Your task to perform on an android device: Play the last video I watched on Youtube Image 0: 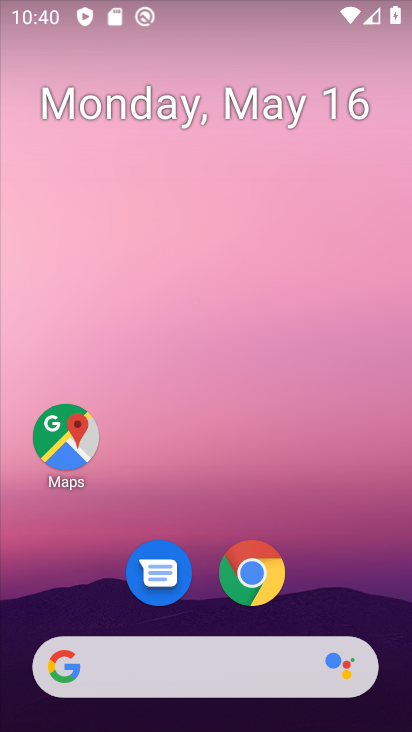
Step 0: drag from (305, 618) to (199, 110)
Your task to perform on an android device: Play the last video I watched on Youtube Image 1: 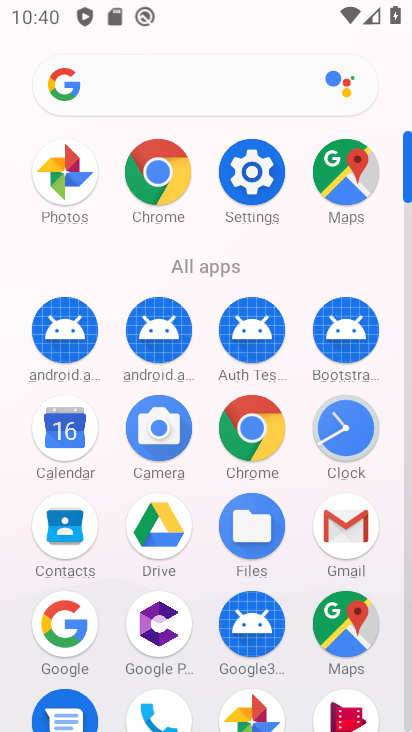
Step 1: click (262, 418)
Your task to perform on an android device: Play the last video I watched on Youtube Image 2: 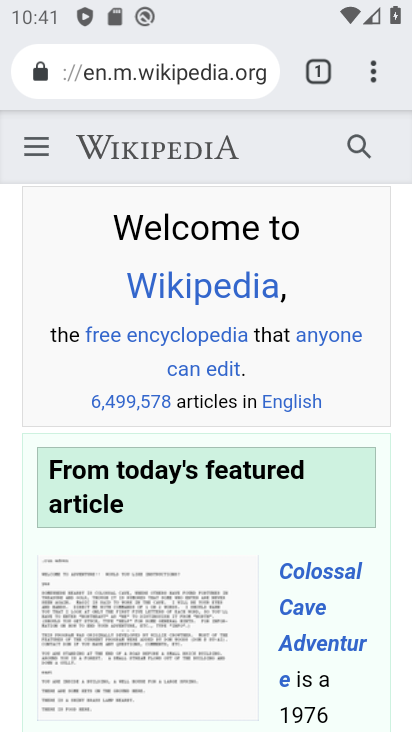
Step 2: press home button
Your task to perform on an android device: Play the last video I watched on Youtube Image 3: 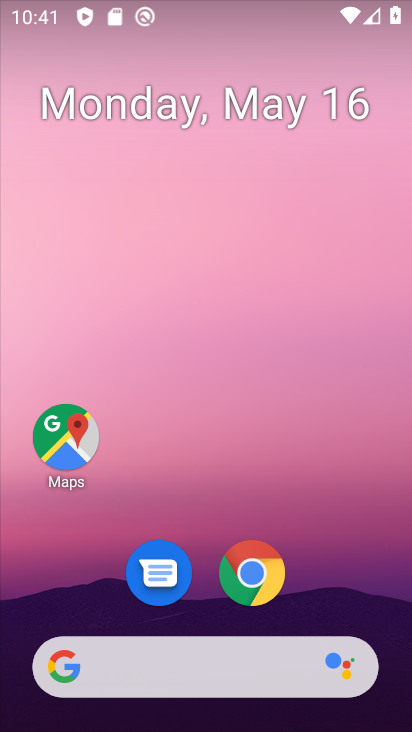
Step 3: drag from (172, 454) to (145, 176)
Your task to perform on an android device: Play the last video I watched on Youtube Image 4: 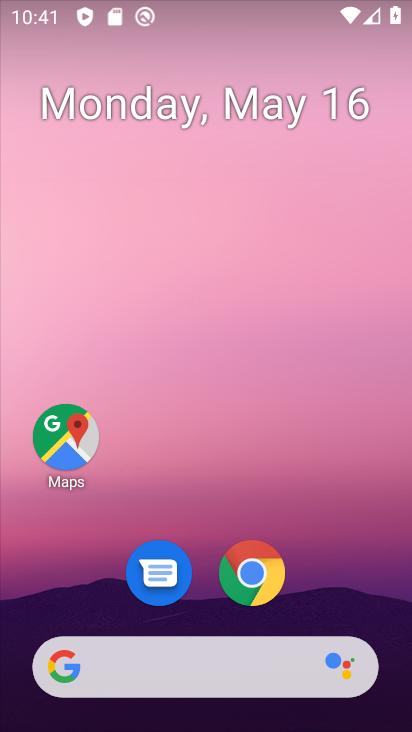
Step 4: drag from (293, 716) to (267, 78)
Your task to perform on an android device: Play the last video I watched on Youtube Image 5: 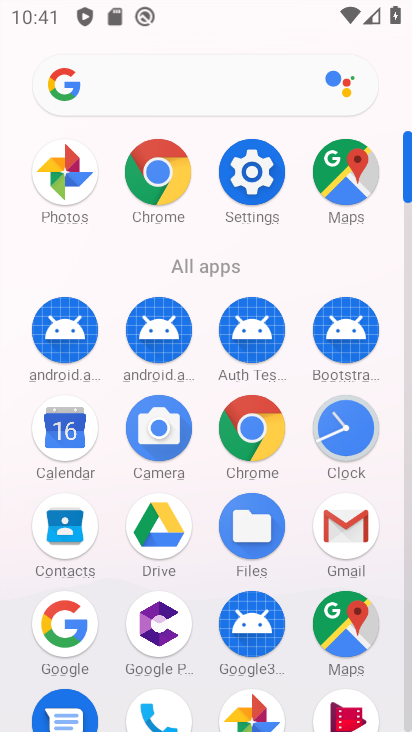
Step 5: drag from (324, 342) to (298, 83)
Your task to perform on an android device: Play the last video I watched on Youtube Image 6: 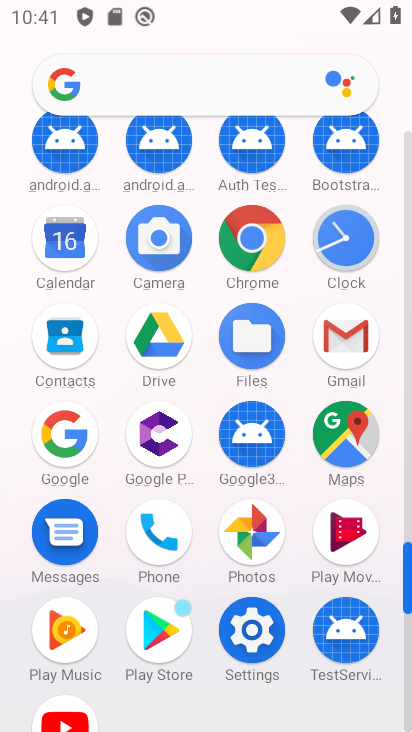
Step 6: click (74, 716)
Your task to perform on an android device: Play the last video I watched on Youtube Image 7: 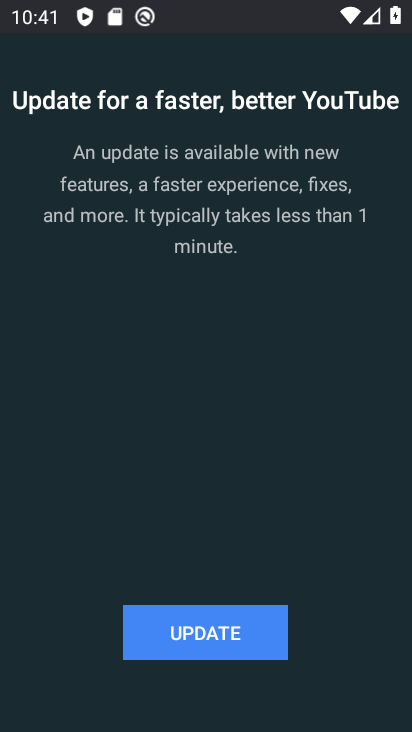
Step 7: drag from (353, 689) to (207, 689)
Your task to perform on an android device: Play the last video I watched on Youtube Image 8: 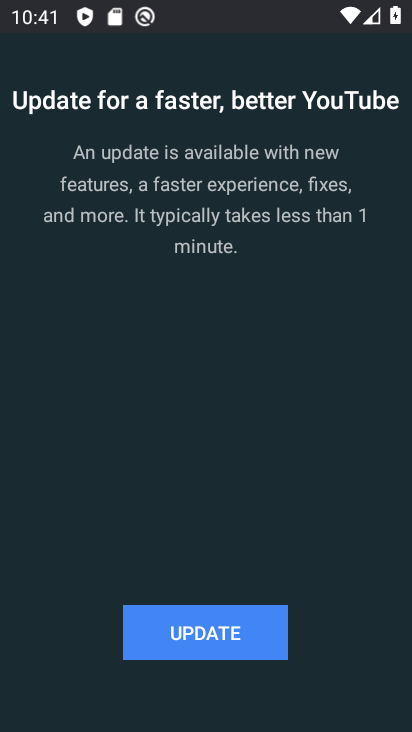
Step 8: click (204, 642)
Your task to perform on an android device: Play the last video I watched on Youtube Image 9: 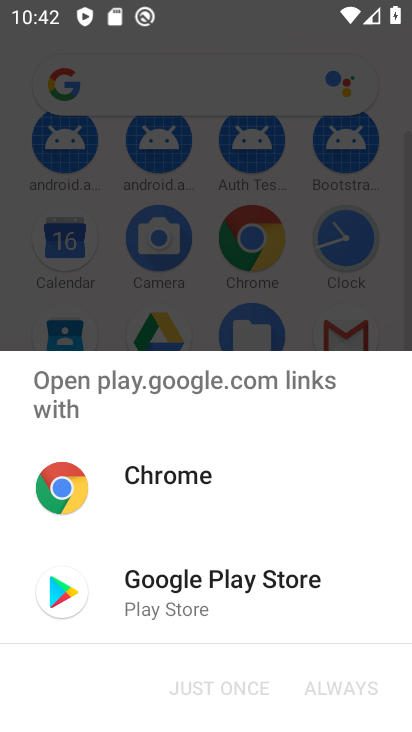
Step 9: click (205, 597)
Your task to perform on an android device: Play the last video I watched on Youtube Image 10: 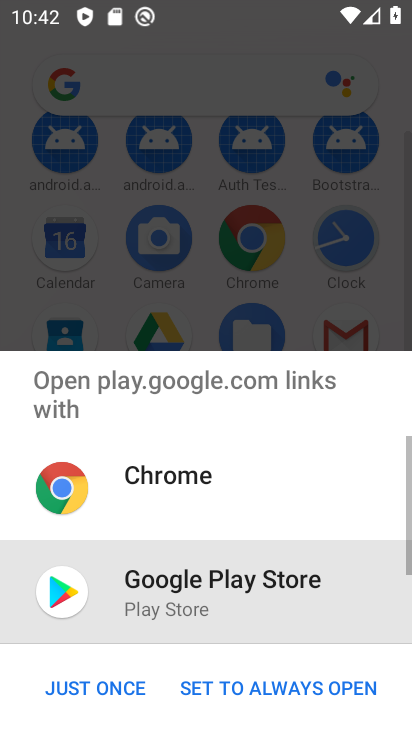
Step 10: click (229, 671)
Your task to perform on an android device: Play the last video I watched on Youtube Image 11: 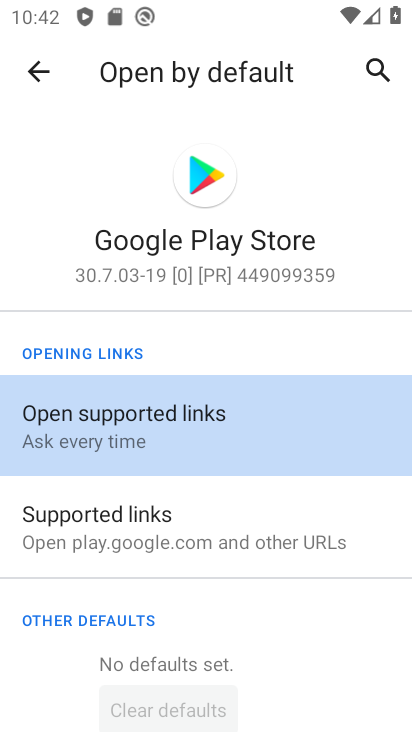
Step 11: press back button
Your task to perform on an android device: Play the last video I watched on Youtube Image 12: 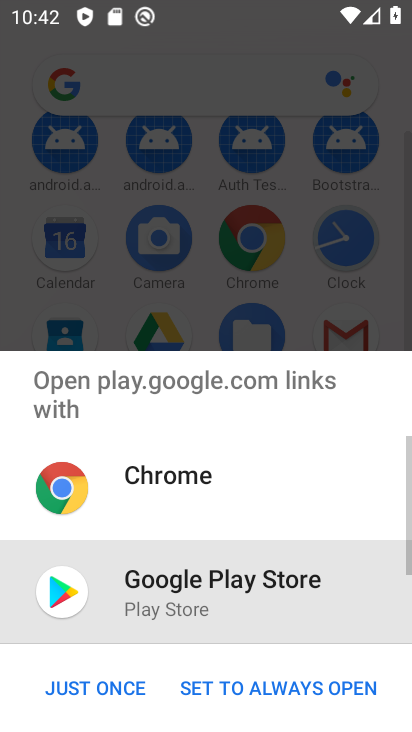
Step 12: click (112, 682)
Your task to perform on an android device: Play the last video I watched on Youtube Image 13: 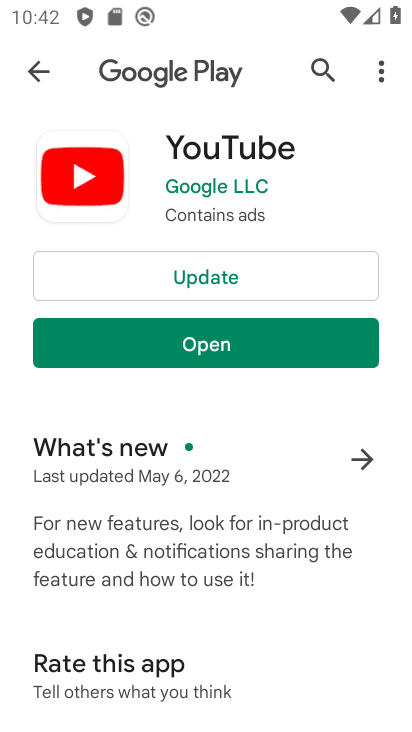
Step 13: click (219, 278)
Your task to perform on an android device: Play the last video I watched on Youtube Image 14: 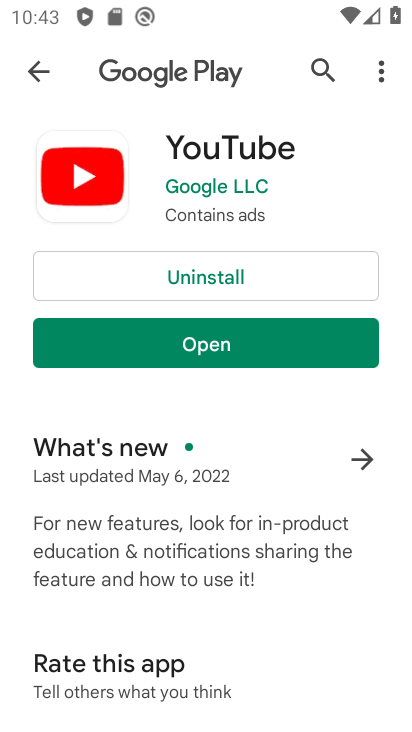
Step 14: click (236, 351)
Your task to perform on an android device: Play the last video I watched on Youtube Image 15: 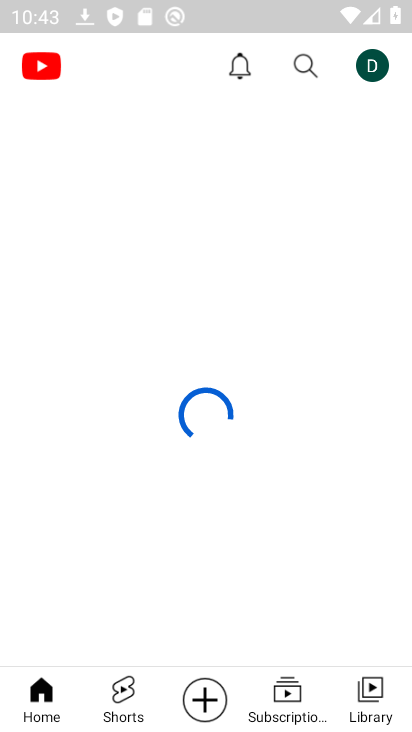
Step 15: click (359, 696)
Your task to perform on an android device: Play the last video I watched on Youtube Image 16: 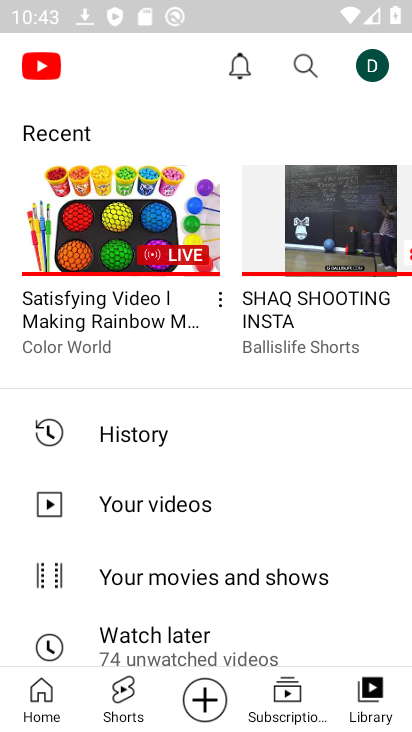
Step 16: click (126, 171)
Your task to perform on an android device: Play the last video I watched on Youtube Image 17: 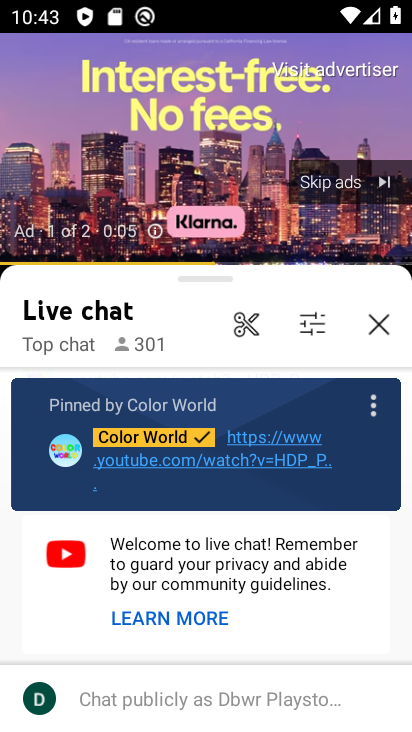
Step 17: task complete